Your task to perform on an android device: toggle airplane mode Image 0: 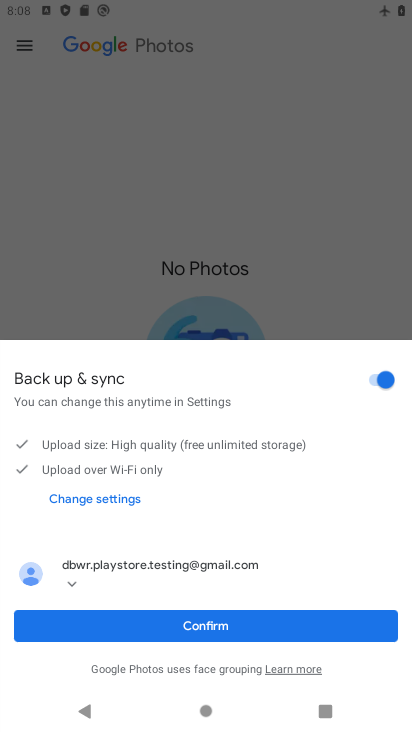
Step 0: press home button
Your task to perform on an android device: toggle airplane mode Image 1: 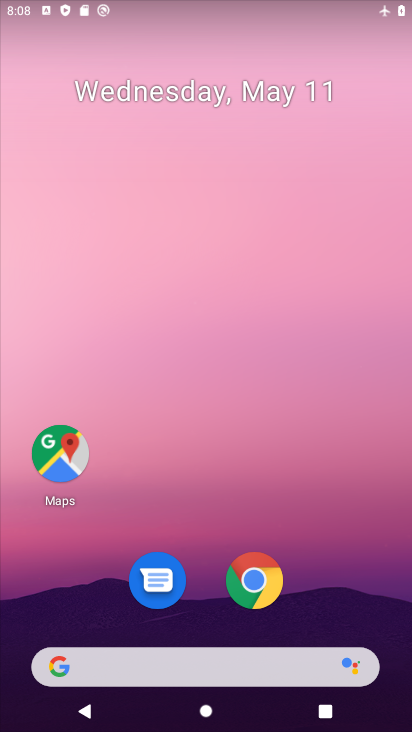
Step 1: drag from (254, 711) to (196, 3)
Your task to perform on an android device: toggle airplane mode Image 2: 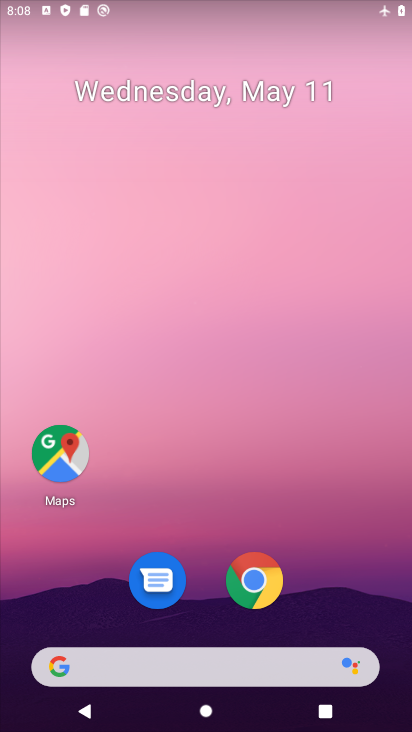
Step 2: drag from (259, 728) to (339, 63)
Your task to perform on an android device: toggle airplane mode Image 3: 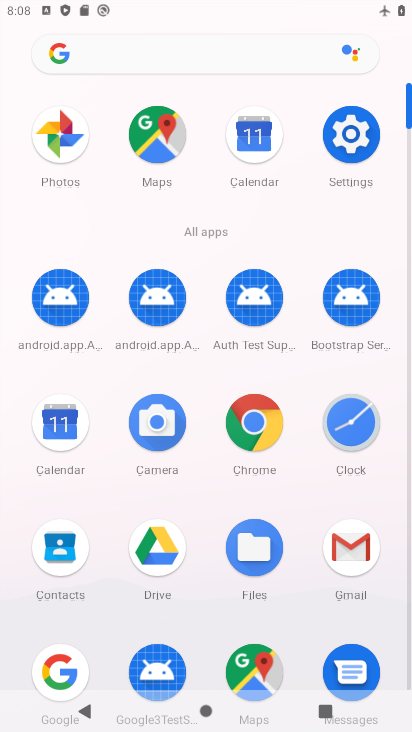
Step 3: click (362, 130)
Your task to perform on an android device: toggle airplane mode Image 4: 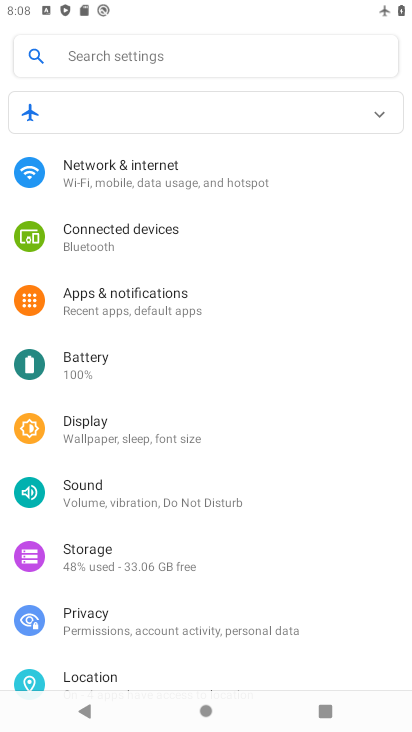
Step 4: click (238, 177)
Your task to perform on an android device: toggle airplane mode Image 5: 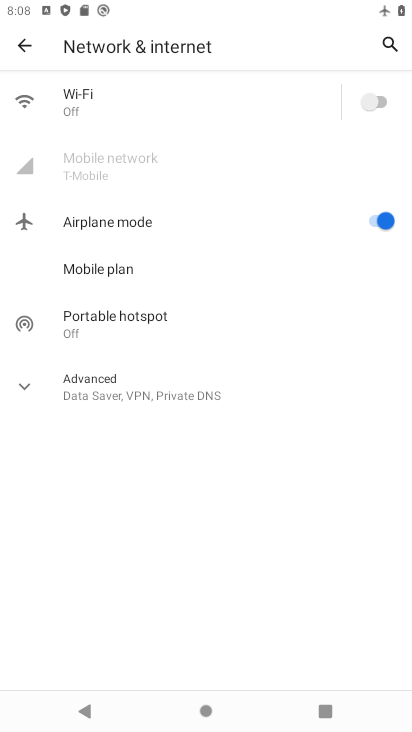
Step 5: click (375, 223)
Your task to perform on an android device: toggle airplane mode Image 6: 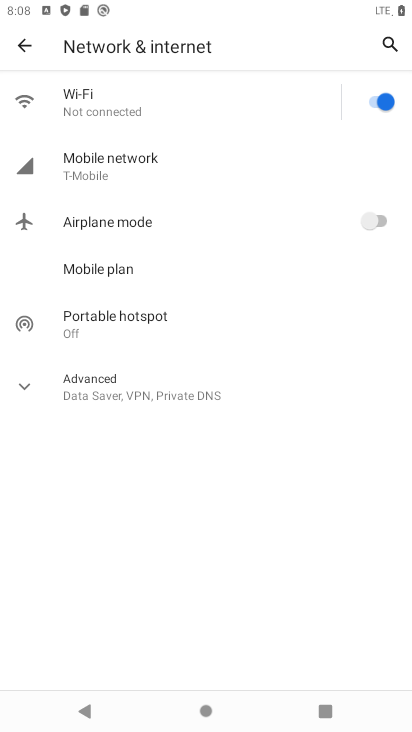
Step 6: task complete